Your task to perform on an android device: open chrome privacy settings Image 0: 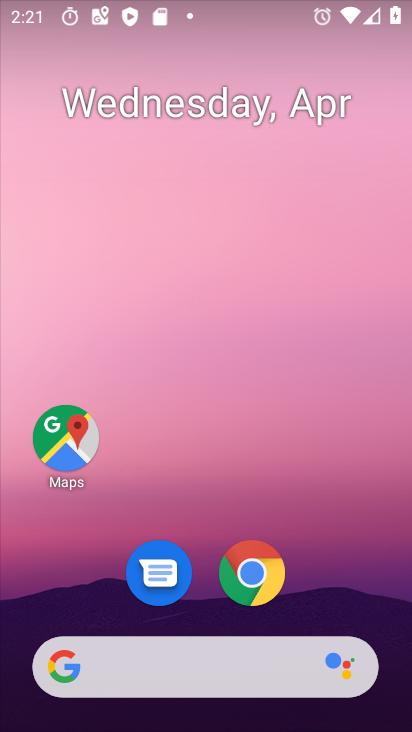
Step 0: drag from (317, 604) to (311, 174)
Your task to perform on an android device: open chrome privacy settings Image 1: 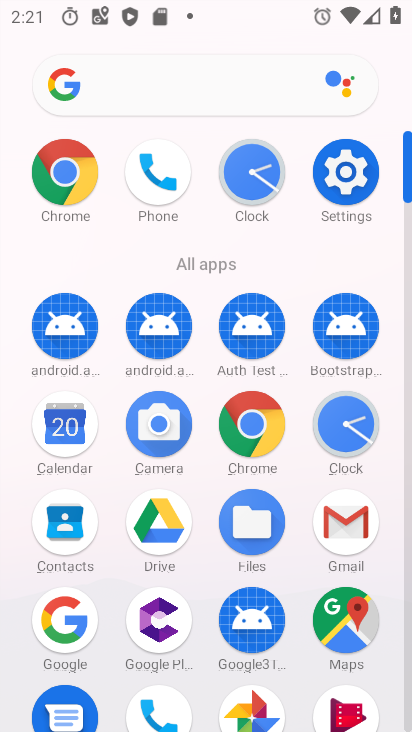
Step 1: click (253, 421)
Your task to perform on an android device: open chrome privacy settings Image 2: 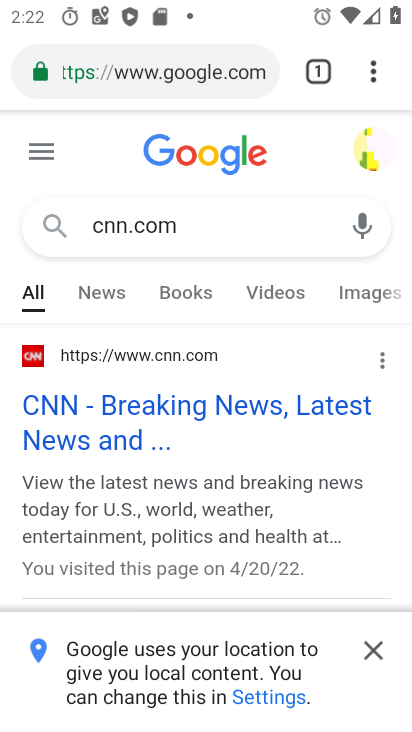
Step 2: click (371, 73)
Your task to perform on an android device: open chrome privacy settings Image 3: 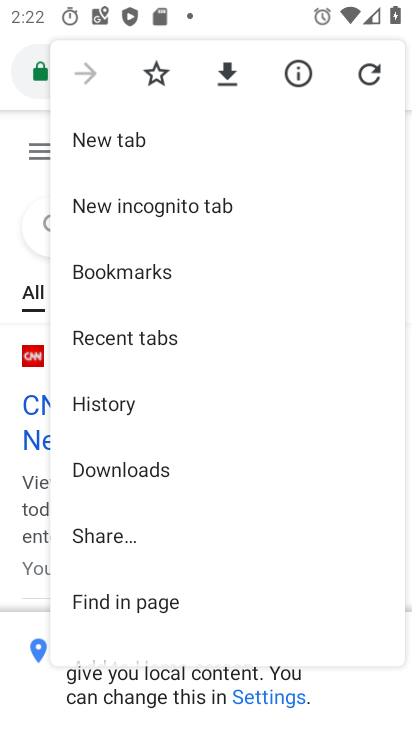
Step 3: drag from (326, 513) to (333, 309)
Your task to perform on an android device: open chrome privacy settings Image 4: 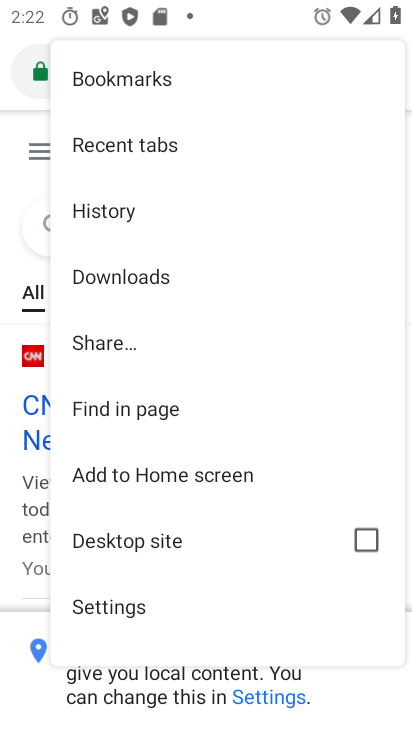
Step 4: drag from (258, 574) to (271, 313)
Your task to perform on an android device: open chrome privacy settings Image 5: 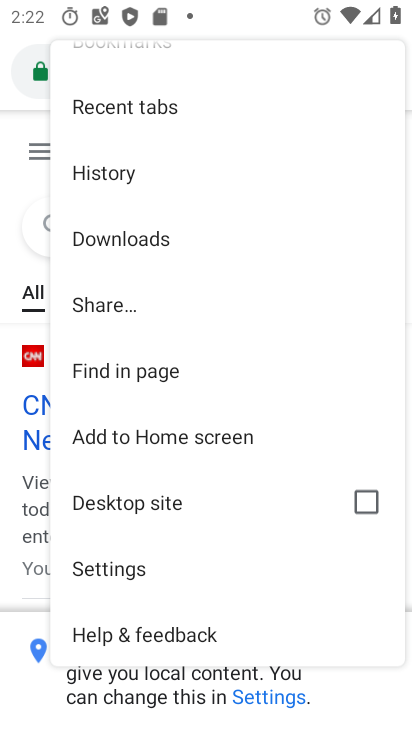
Step 5: click (113, 565)
Your task to perform on an android device: open chrome privacy settings Image 6: 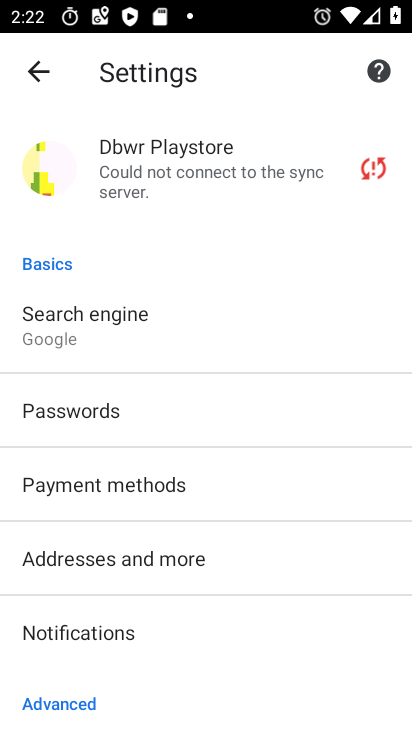
Step 6: drag from (296, 621) to (299, 402)
Your task to perform on an android device: open chrome privacy settings Image 7: 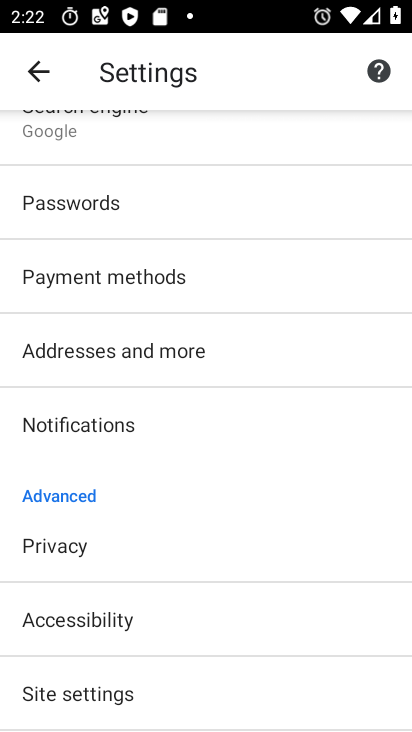
Step 7: drag from (288, 575) to (298, 382)
Your task to perform on an android device: open chrome privacy settings Image 8: 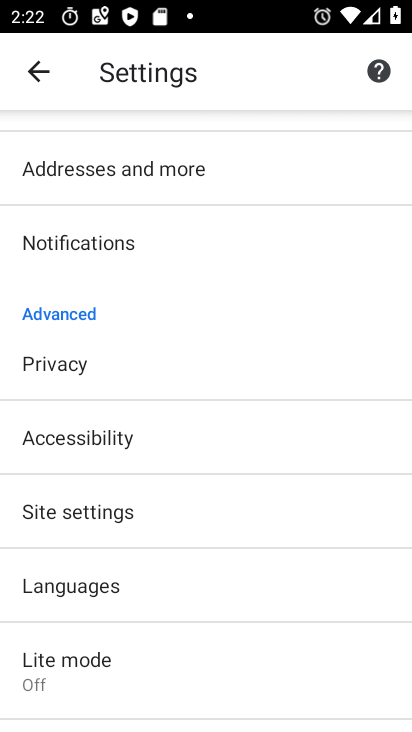
Step 8: drag from (305, 593) to (307, 428)
Your task to perform on an android device: open chrome privacy settings Image 9: 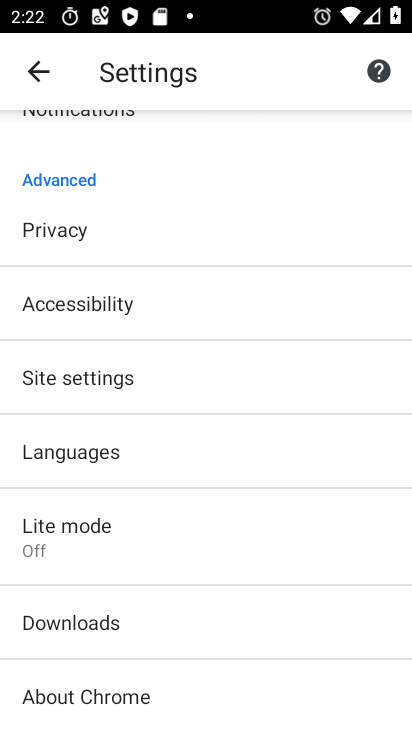
Step 9: drag from (310, 618) to (313, 439)
Your task to perform on an android device: open chrome privacy settings Image 10: 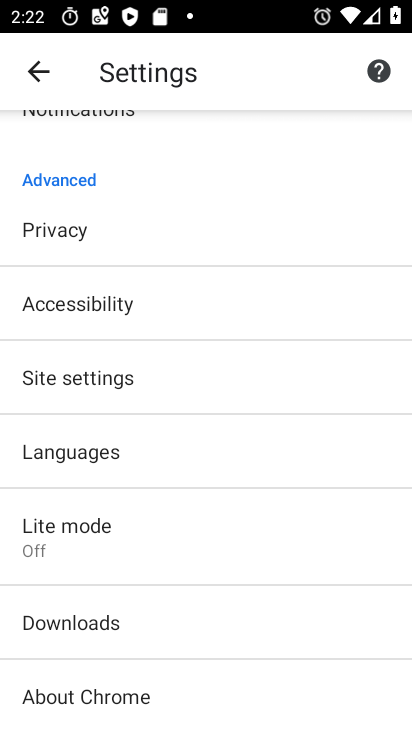
Step 10: click (80, 233)
Your task to perform on an android device: open chrome privacy settings Image 11: 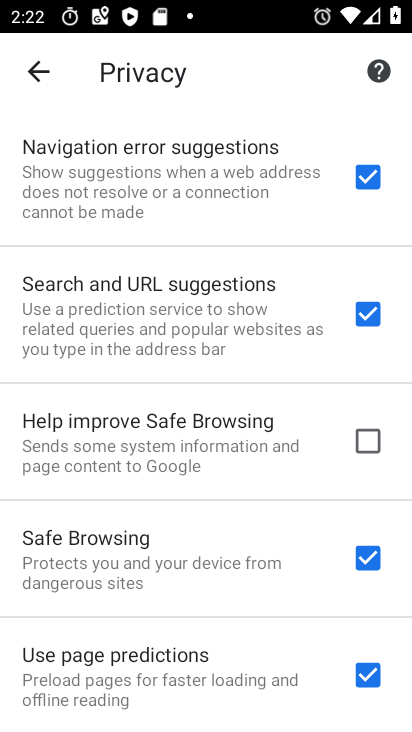
Step 11: task complete